Your task to perform on an android device: turn vacation reply on in the gmail app Image 0: 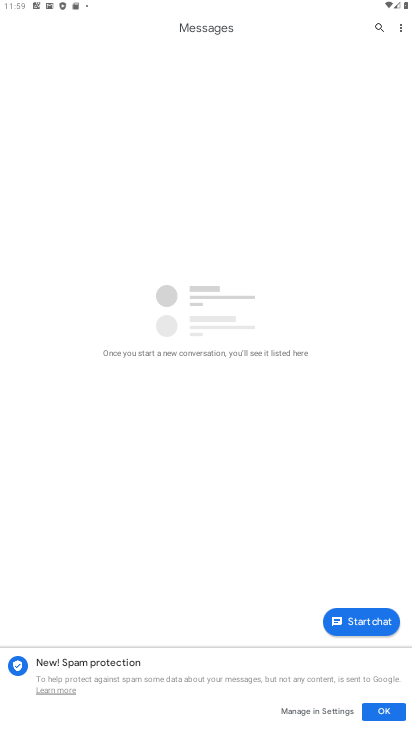
Step 0: press home button
Your task to perform on an android device: turn vacation reply on in the gmail app Image 1: 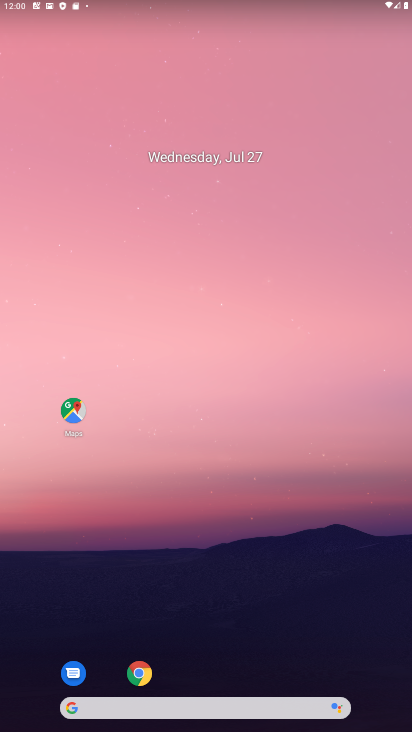
Step 1: drag from (234, 643) to (240, 35)
Your task to perform on an android device: turn vacation reply on in the gmail app Image 2: 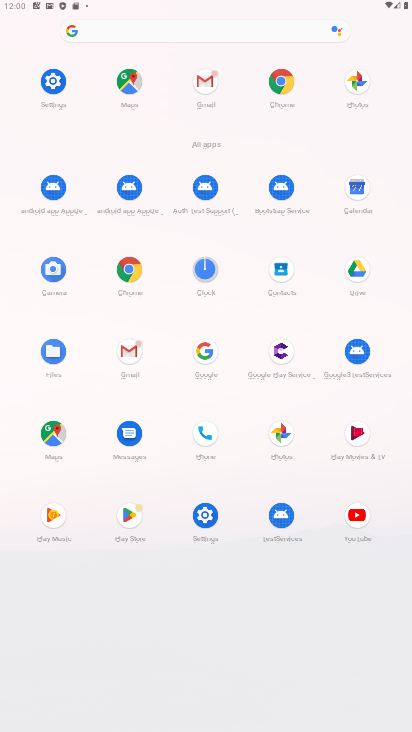
Step 2: click (198, 76)
Your task to perform on an android device: turn vacation reply on in the gmail app Image 3: 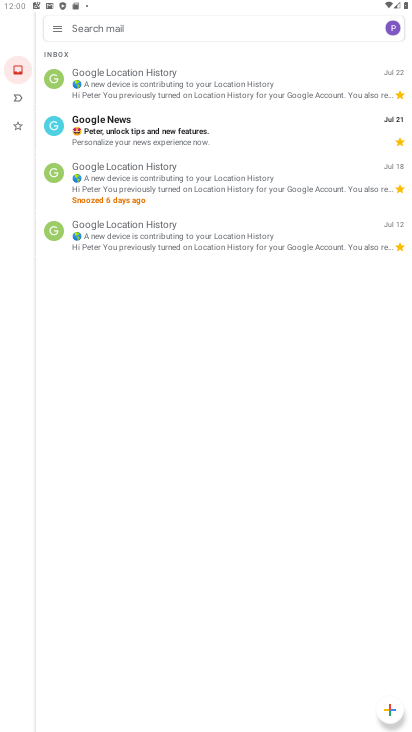
Step 3: click (63, 31)
Your task to perform on an android device: turn vacation reply on in the gmail app Image 4: 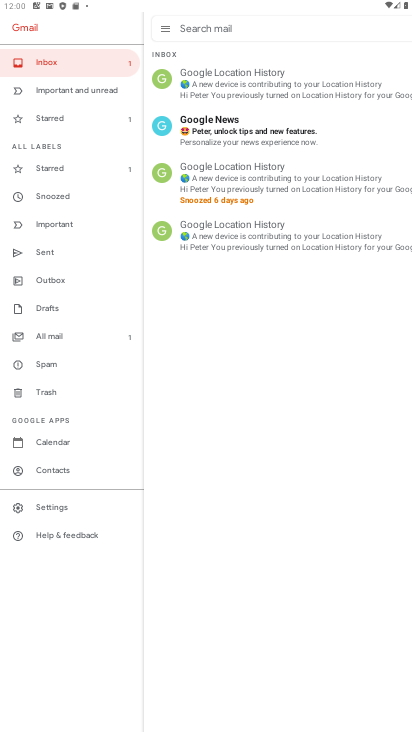
Step 4: click (69, 498)
Your task to perform on an android device: turn vacation reply on in the gmail app Image 5: 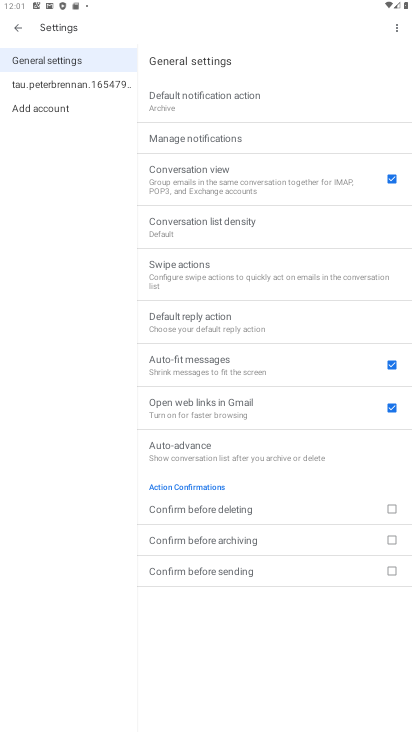
Step 5: click (86, 83)
Your task to perform on an android device: turn vacation reply on in the gmail app Image 6: 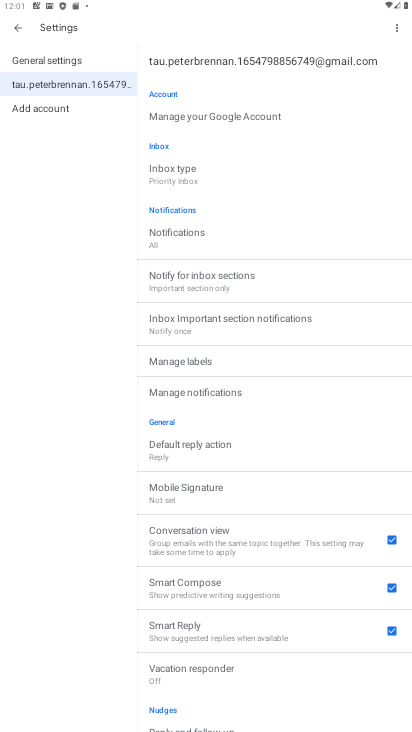
Step 6: click (192, 668)
Your task to perform on an android device: turn vacation reply on in the gmail app Image 7: 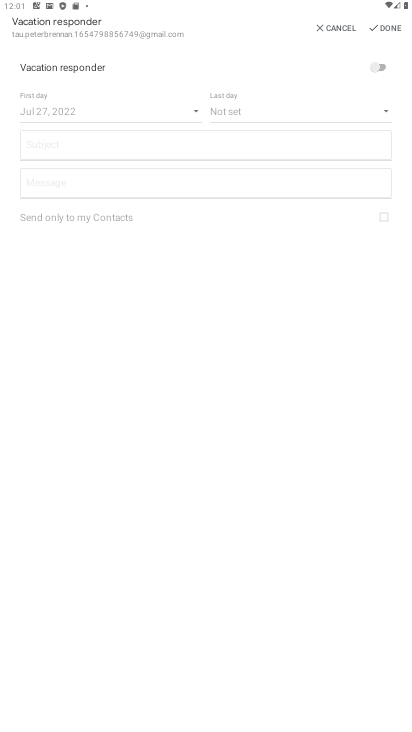
Step 7: click (379, 68)
Your task to perform on an android device: turn vacation reply on in the gmail app Image 8: 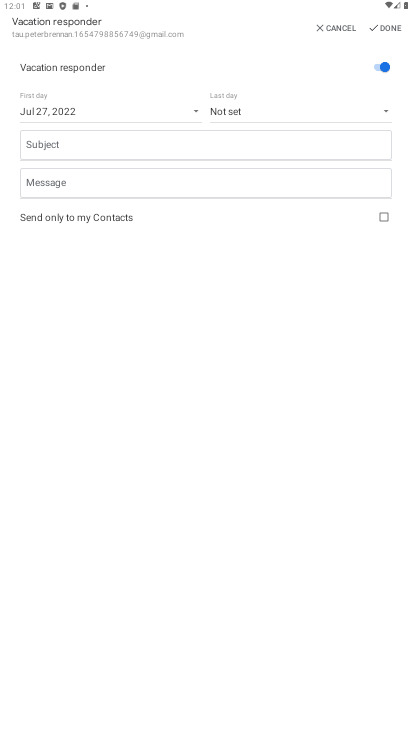
Step 8: task complete